Your task to perform on an android device: toggle wifi Image 0: 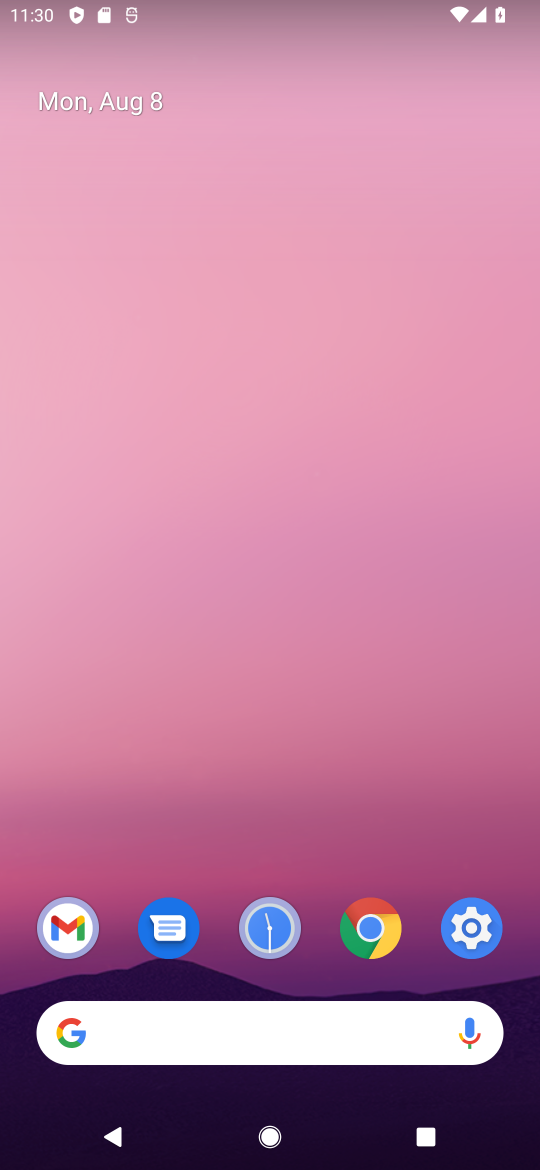
Step 0: click (474, 924)
Your task to perform on an android device: toggle wifi Image 1: 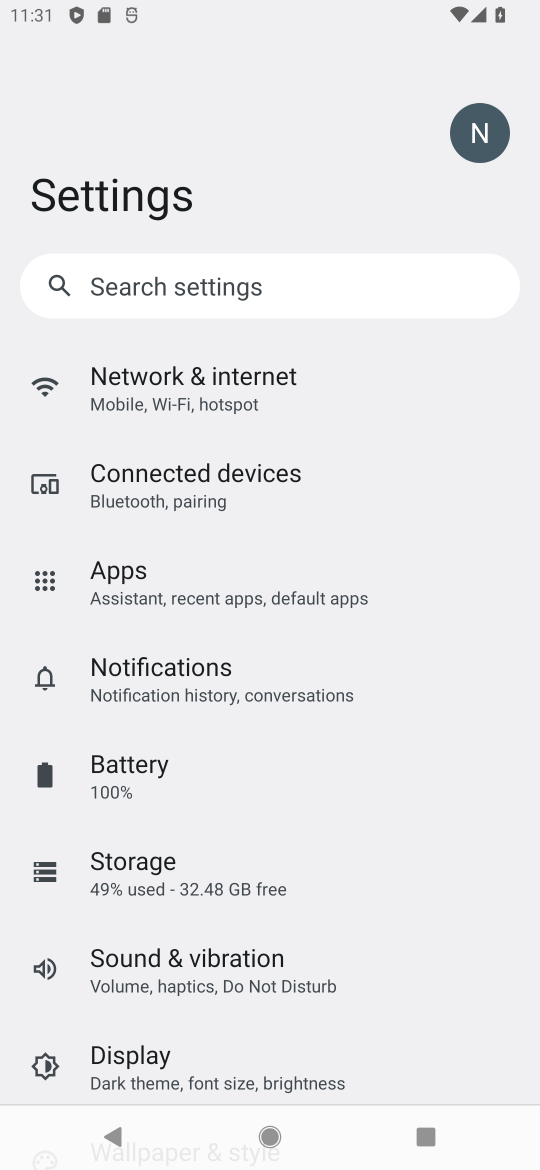
Step 1: click (169, 275)
Your task to perform on an android device: toggle wifi Image 2: 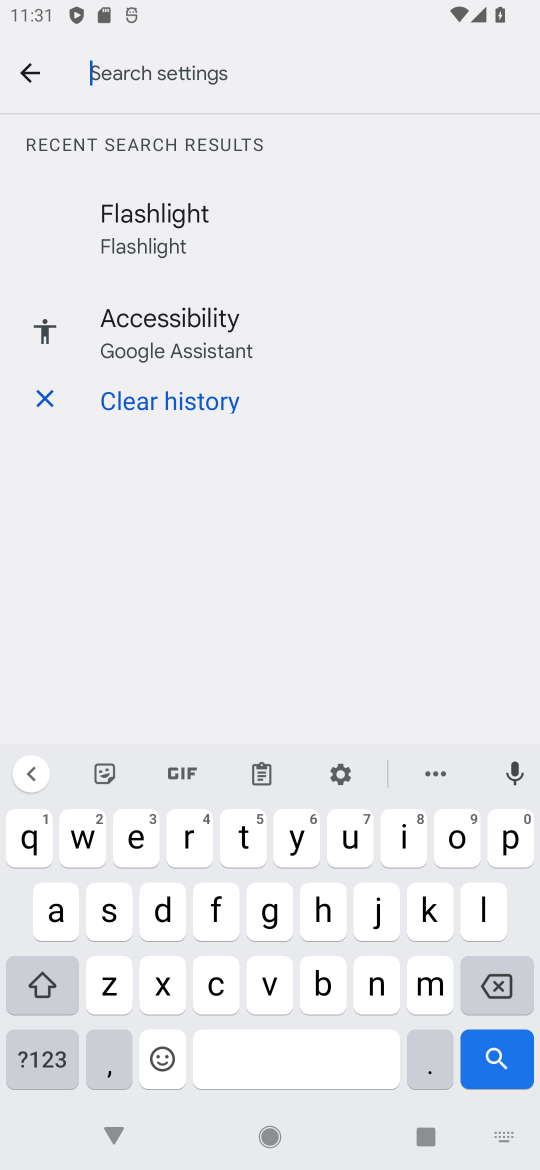
Step 2: click (29, 79)
Your task to perform on an android device: toggle wifi Image 3: 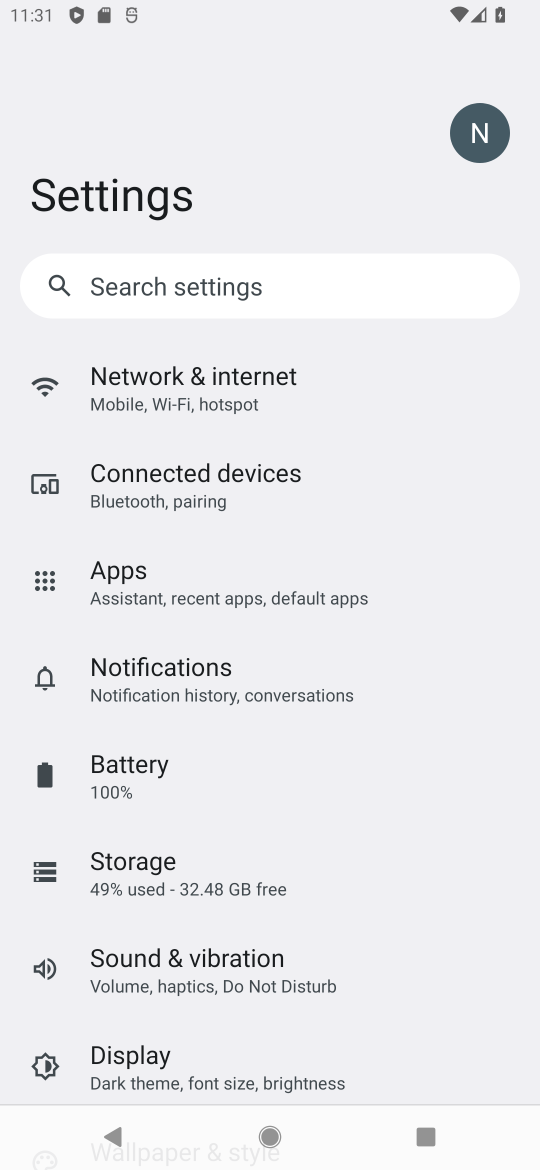
Step 3: click (220, 413)
Your task to perform on an android device: toggle wifi Image 4: 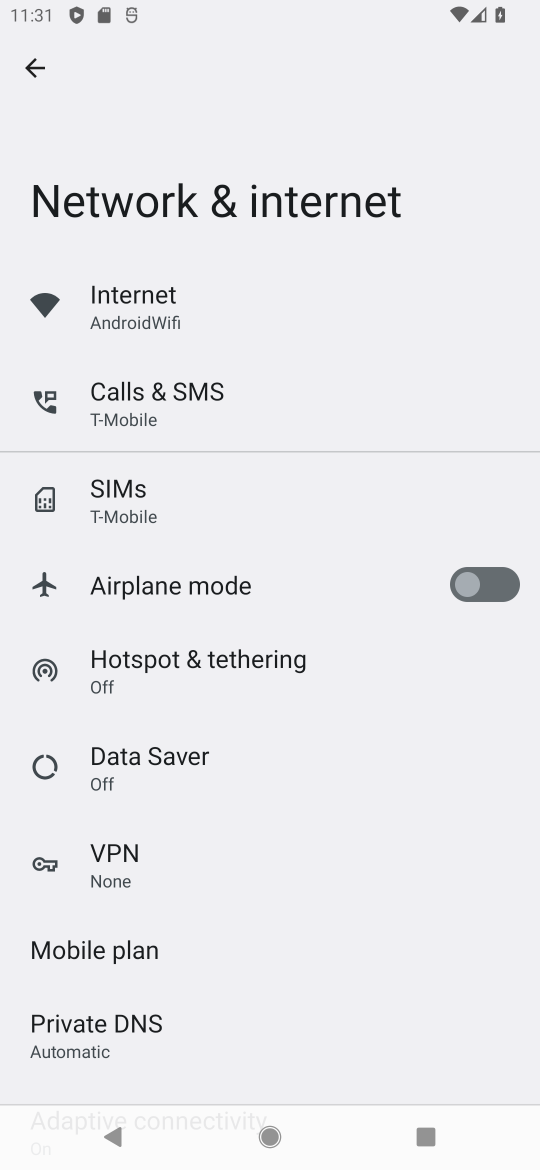
Step 4: task complete